Your task to perform on an android device: Search for hotels in Buenos aires Image 0: 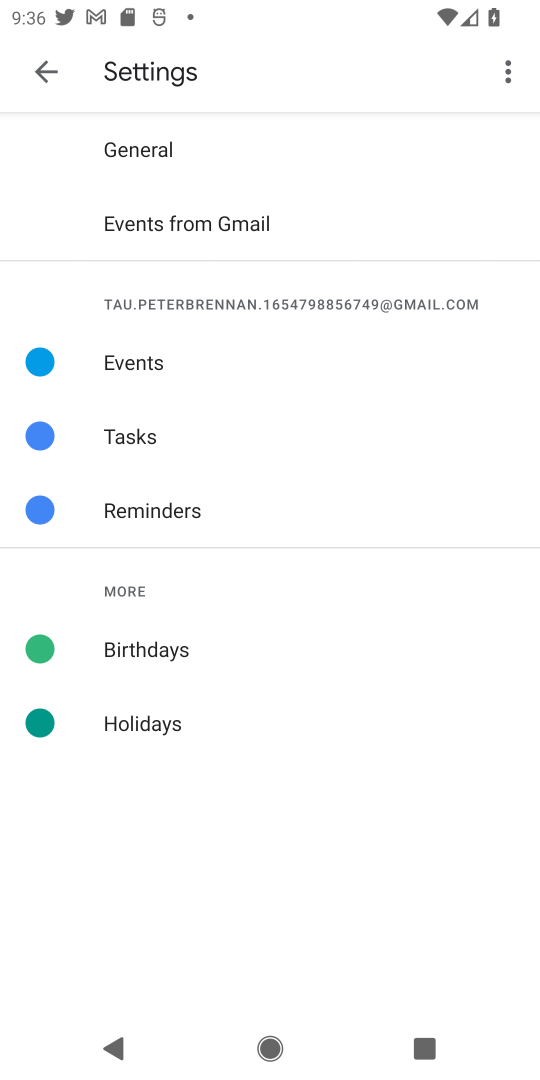
Step 0: press home button
Your task to perform on an android device: Search for hotels in Buenos aires Image 1: 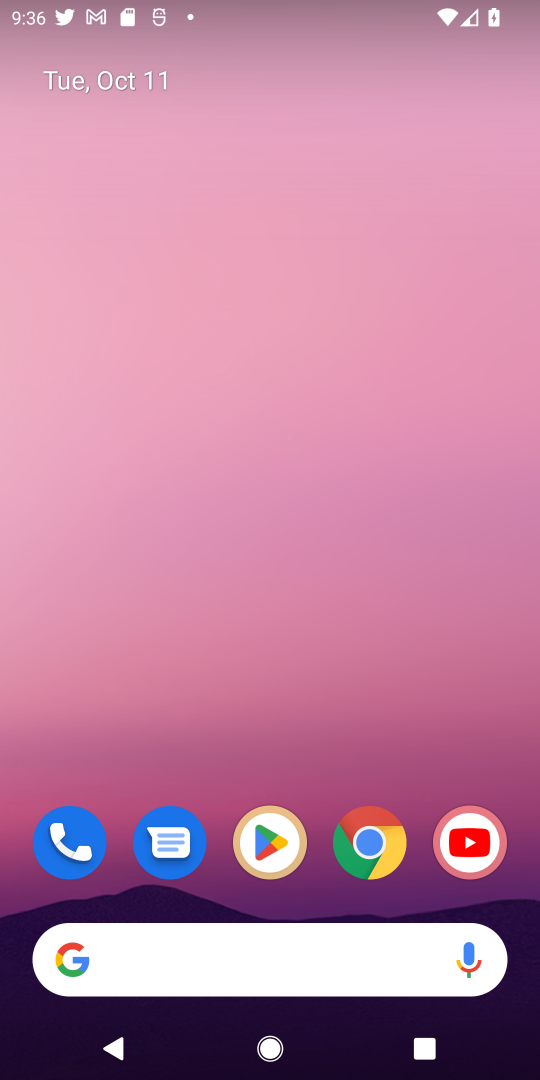
Step 1: click (362, 844)
Your task to perform on an android device: Search for hotels in Buenos aires Image 2: 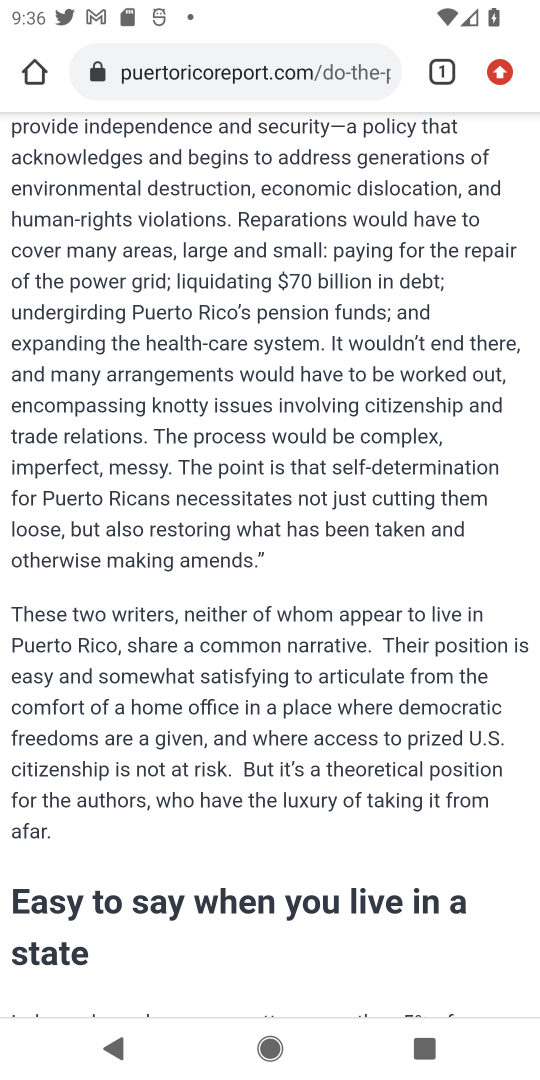
Step 2: click (267, 77)
Your task to perform on an android device: Search for hotels in Buenos aires Image 3: 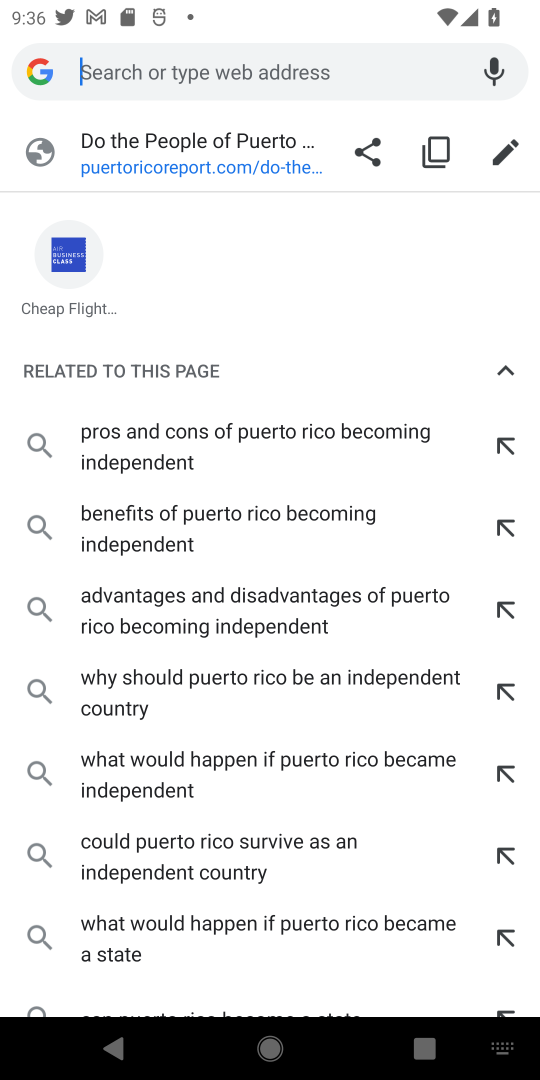
Step 3: type "hotel in buenos aires"
Your task to perform on an android device: Search for hotels in Buenos aires Image 4: 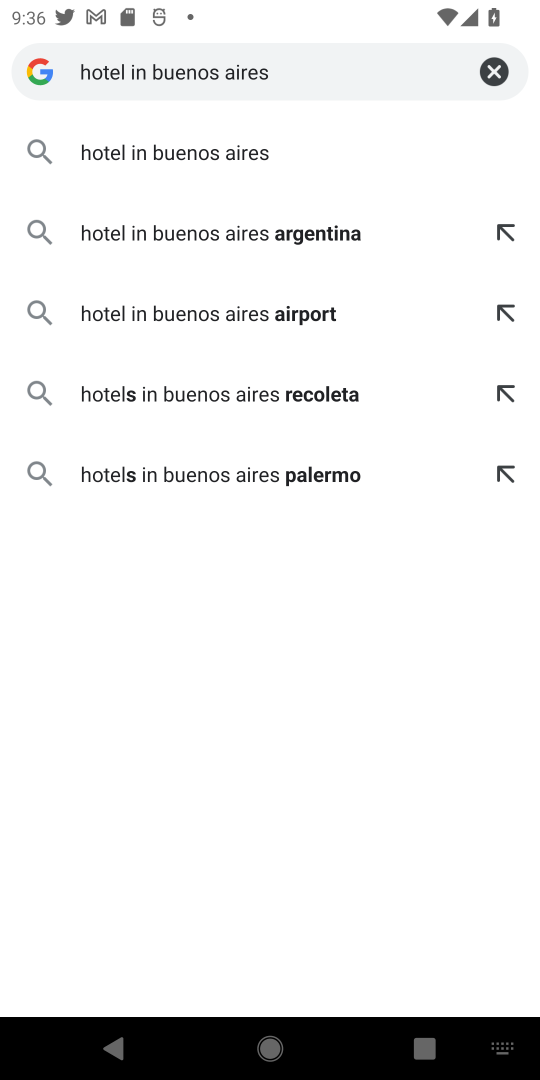
Step 4: click (218, 149)
Your task to perform on an android device: Search for hotels in Buenos aires Image 5: 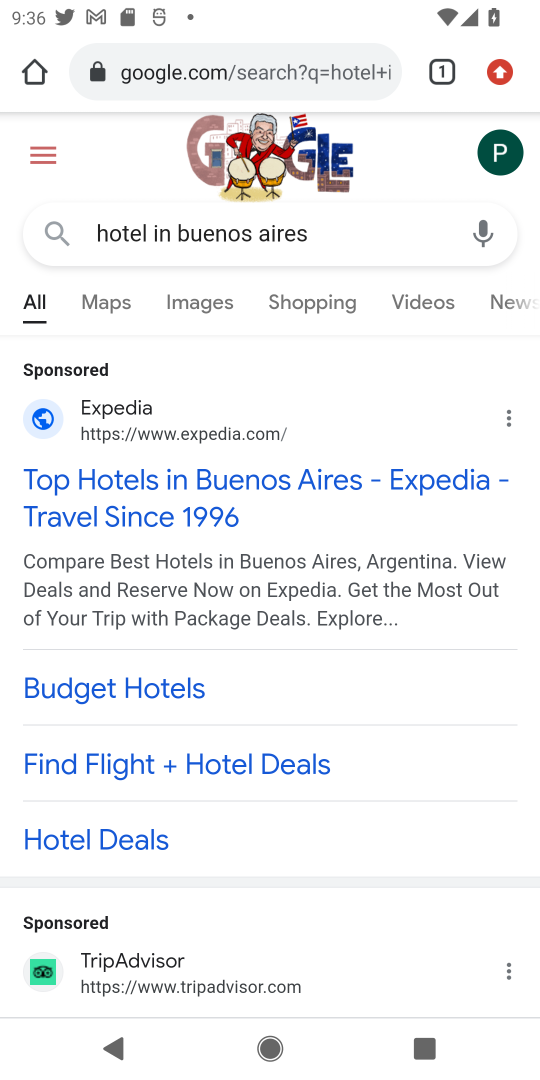
Step 5: click (138, 479)
Your task to perform on an android device: Search for hotels in Buenos aires Image 6: 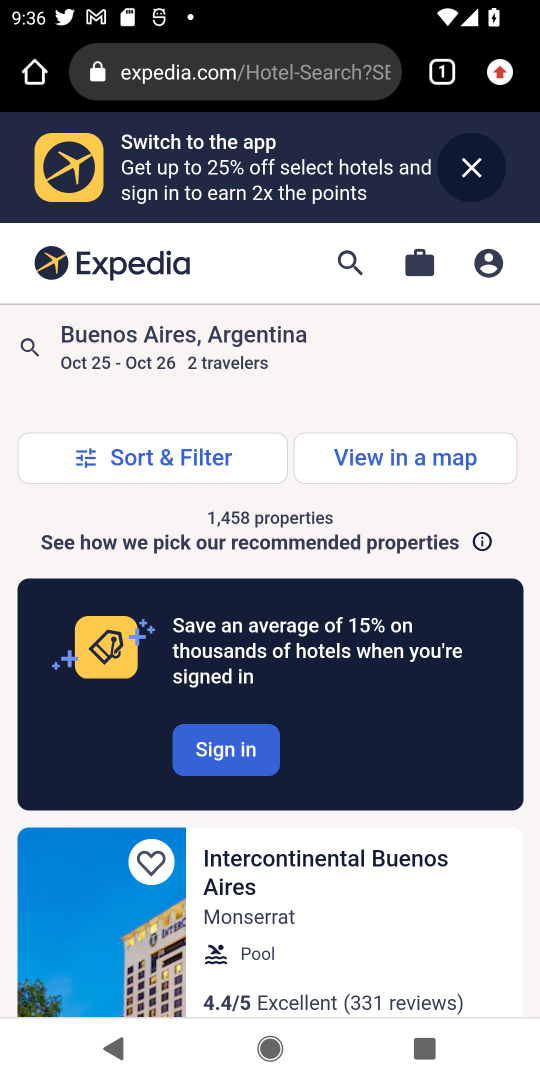
Step 6: task complete